Your task to perform on an android device: turn off airplane mode Image 0: 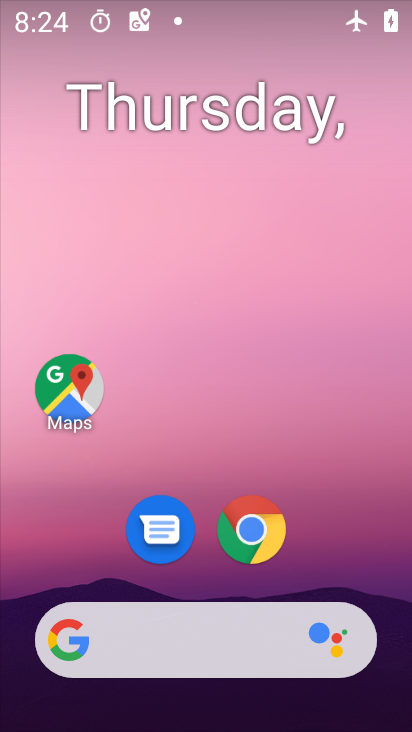
Step 0: drag from (351, 504) to (358, 144)
Your task to perform on an android device: turn off airplane mode Image 1: 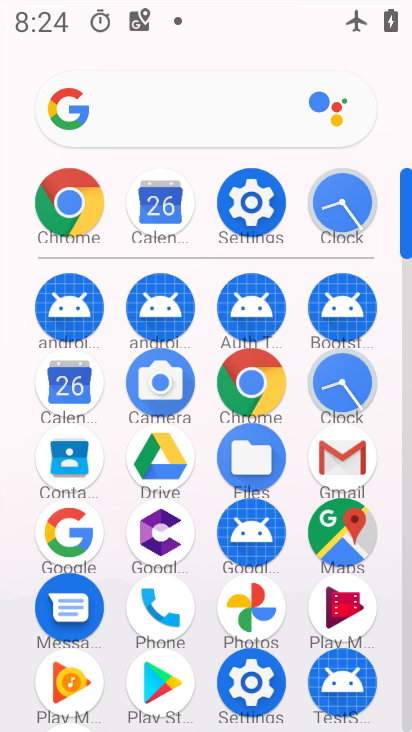
Step 1: click (250, 201)
Your task to perform on an android device: turn off airplane mode Image 2: 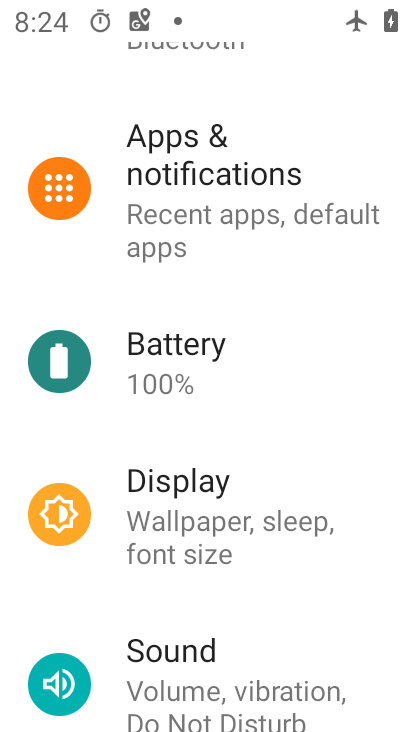
Step 2: drag from (343, 144) to (343, 257)
Your task to perform on an android device: turn off airplane mode Image 3: 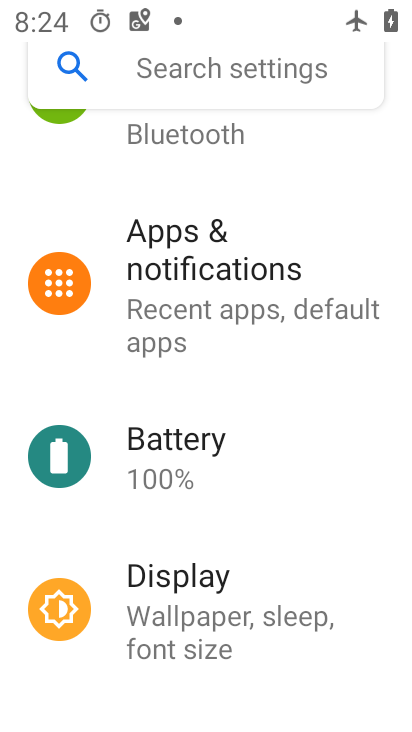
Step 3: drag from (342, 146) to (347, 266)
Your task to perform on an android device: turn off airplane mode Image 4: 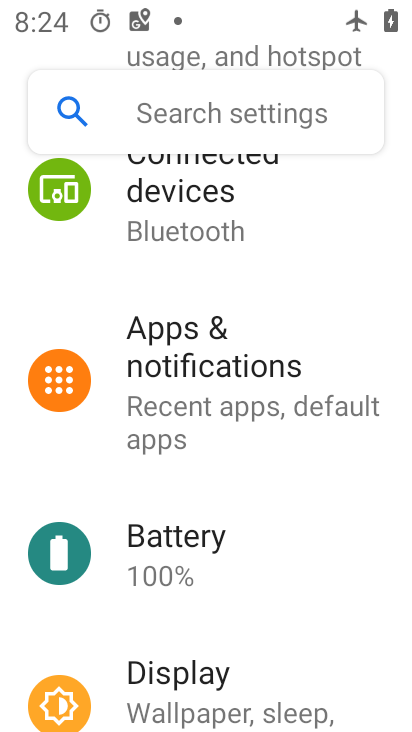
Step 4: drag from (340, 183) to (345, 287)
Your task to perform on an android device: turn off airplane mode Image 5: 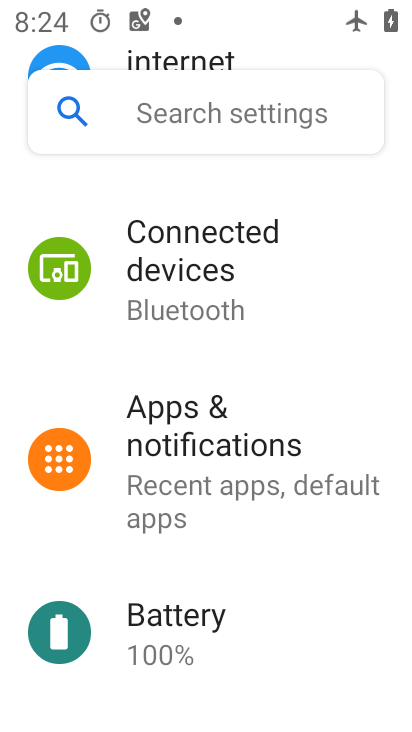
Step 5: drag from (343, 182) to (334, 275)
Your task to perform on an android device: turn off airplane mode Image 6: 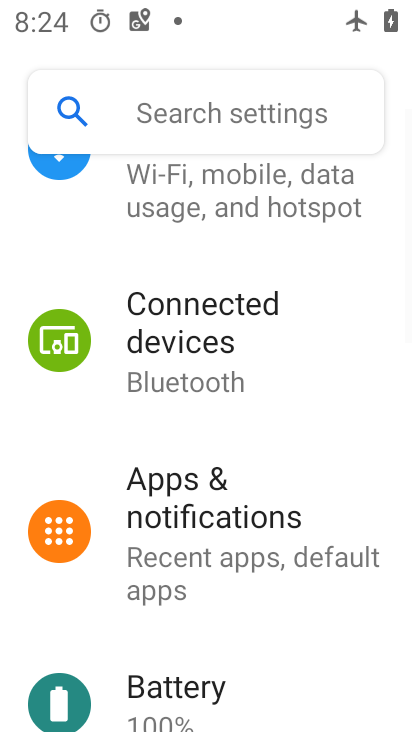
Step 6: drag from (381, 169) to (376, 268)
Your task to perform on an android device: turn off airplane mode Image 7: 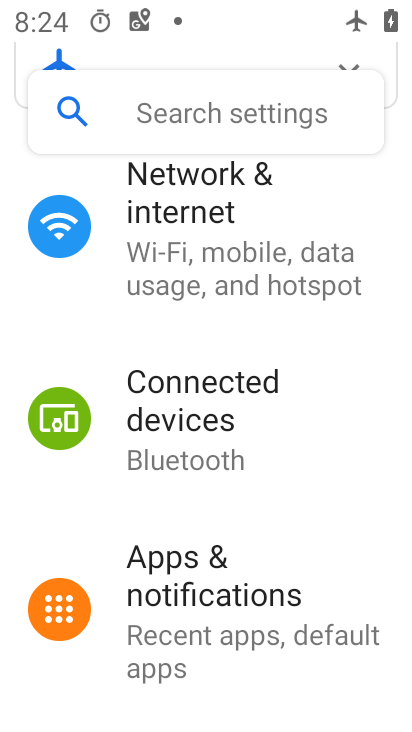
Step 7: drag from (368, 199) to (362, 284)
Your task to perform on an android device: turn off airplane mode Image 8: 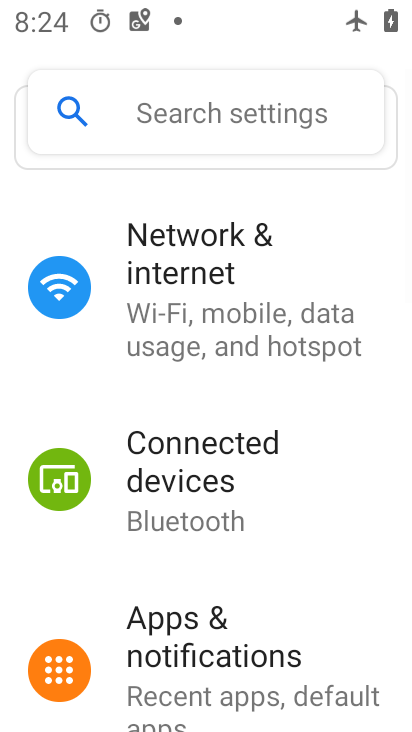
Step 8: click (297, 296)
Your task to perform on an android device: turn off airplane mode Image 9: 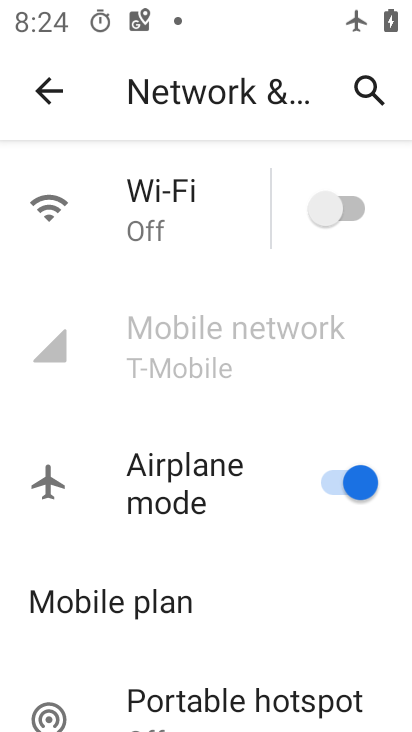
Step 9: click (316, 484)
Your task to perform on an android device: turn off airplane mode Image 10: 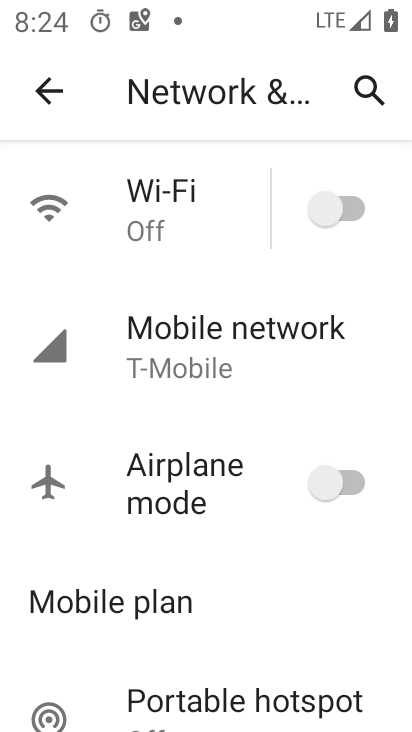
Step 10: task complete